Your task to perform on an android device: turn off notifications in google photos Image 0: 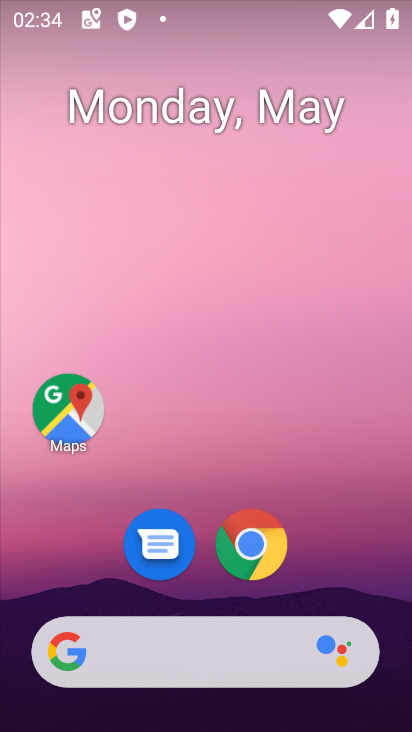
Step 0: drag from (375, 594) to (365, 227)
Your task to perform on an android device: turn off notifications in google photos Image 1: 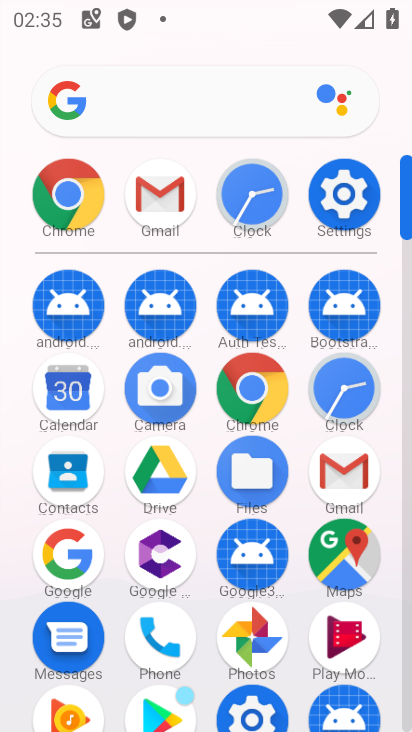
Step 1: click (263, 639)
Your task to perform on an android device: turn off notifications in google photos Image 2: 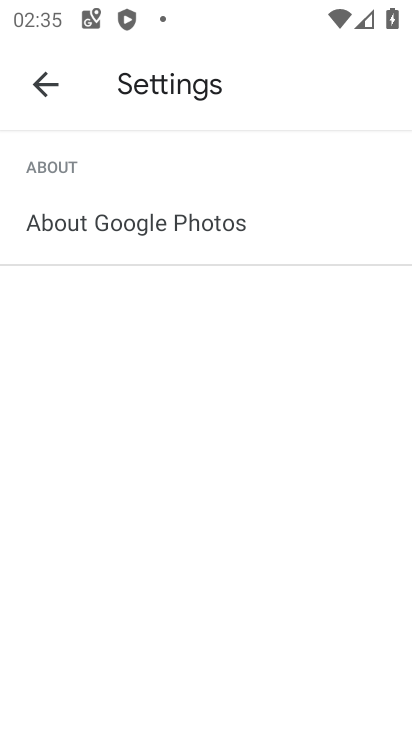
Step 2: click (48, 90)
Your task to perform on an android device: turn off notifications in google photos Image 3: 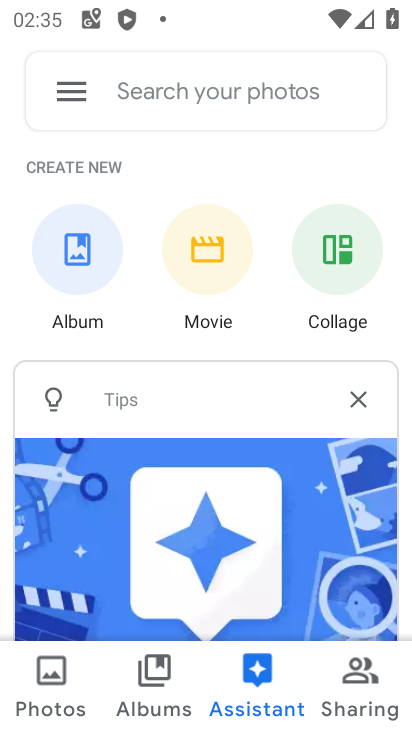
Step 3: click (78, 101)
Your task to perform on an android device: turn off notifications in google photos Image 4: 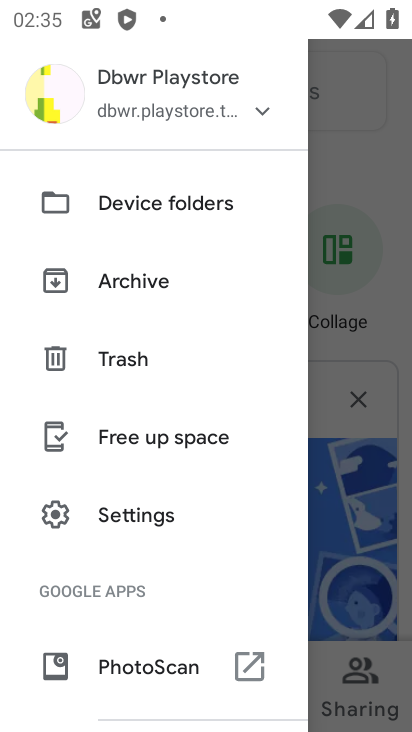
Step 4: drag from (245, 479) to (264, 323)
Your task to perform on an android device: turn off notifications in google photos Image 5: 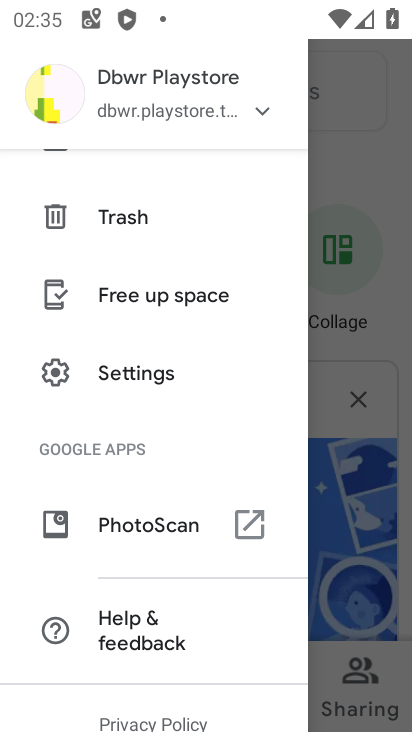
Step 5: drag from (244, 431) to (235, 286)
Your task to perform on an android device: turn off notifications in google photos Image 6: 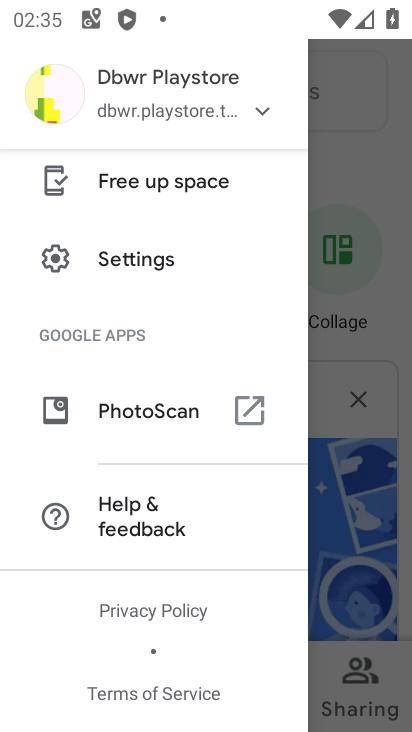
Step 6: drag from (226, 496) to (179, 296)
Your task to perform on an android device: turn off notifications in google photos Image 7: 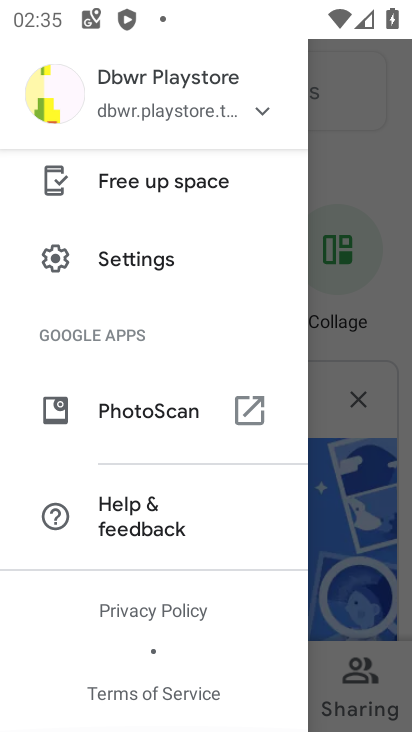
Step 7: click (164, 265)
Your task to perform on an android device: turn off notifications in google photos Image 8: 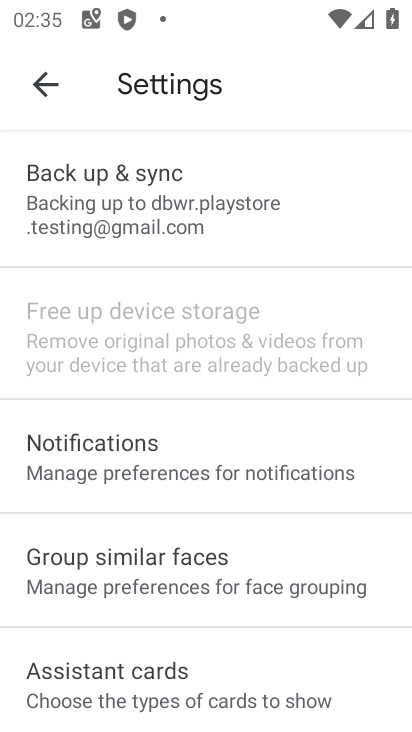
Step 8: drag from (277, 486) to (292, 305)
Your task to perform on an android device: turn off notifications in google photos Image 9: 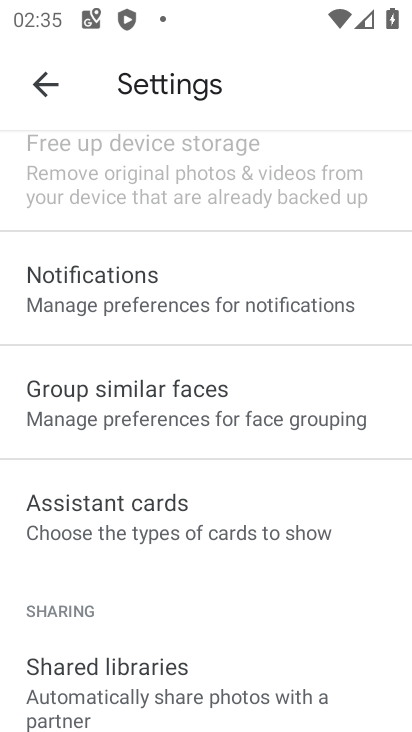
Step 9: drag from (296, 501) to (301, 322)
Your task to perform on an android device: turn off notifications in google photos Image 10: 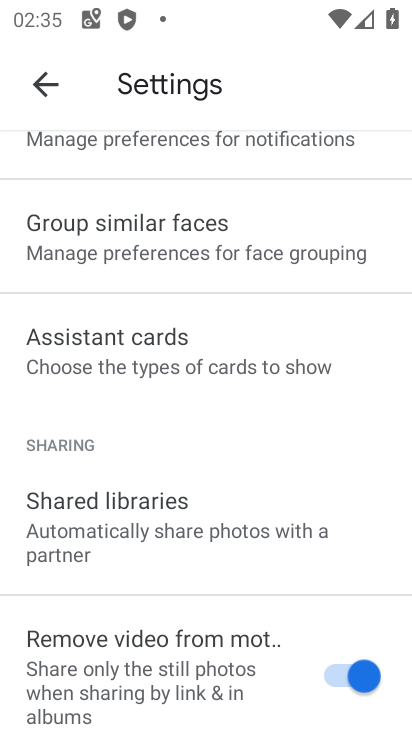
Step 10: drag from (286, 512) to (300, 252)
Your task to perform on an android device: turn off notifications in google photos Image 11: 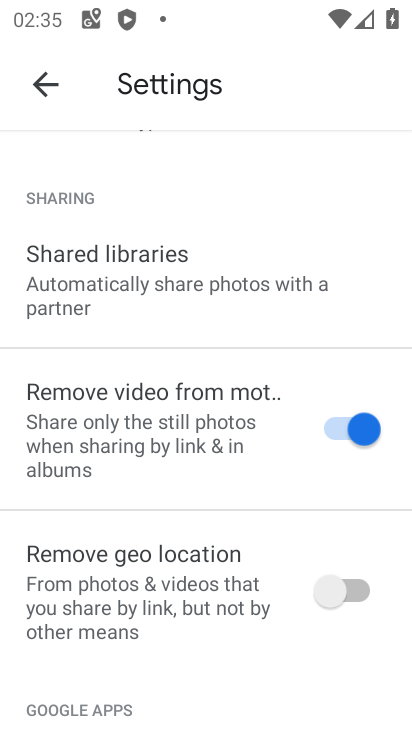
Step 11: drag from (278, 557) to (283, 321)
Your task to perform on an android device: turn off notifications in google photos Image 12: 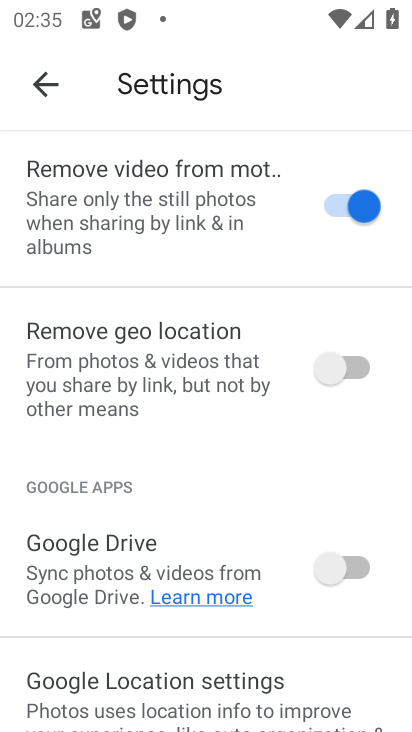
Step 12: drag from (286, 623) to (275, 372)
Your task to perform on an android device: turn off notifications in google photos Image 13: 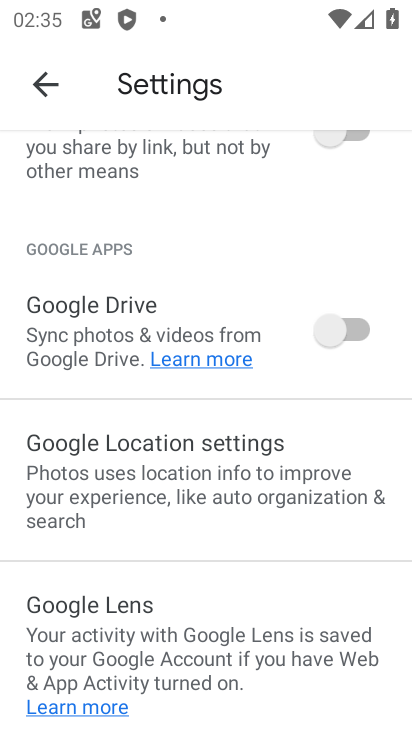
Step 13: drag from (271, 564) to (305, 319)
Your task to perform on an android device: turn off notifications in google photos Image 14: 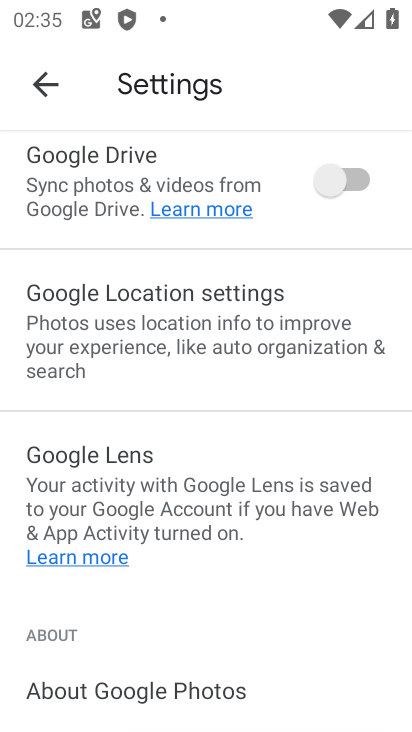
Step 14: drag from (304, 276) to (307, 506)
Your task to perform on an android device: turn off notifications in google photos Image 15: 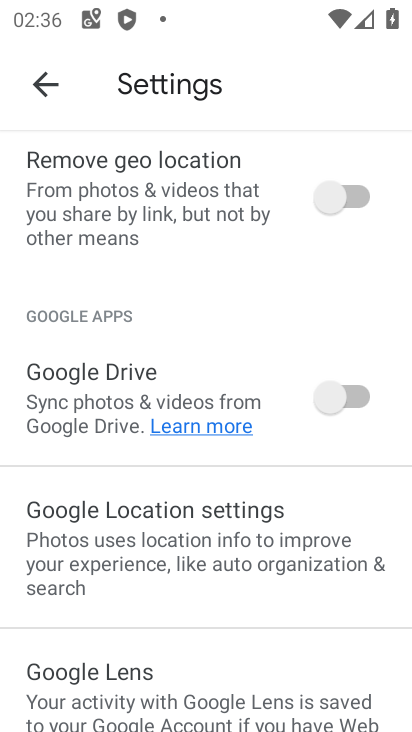
Step 15: drag from (283, 285) to (284, 469)
Your task to perform on an android device: turn off notifications in google photos Image 16: 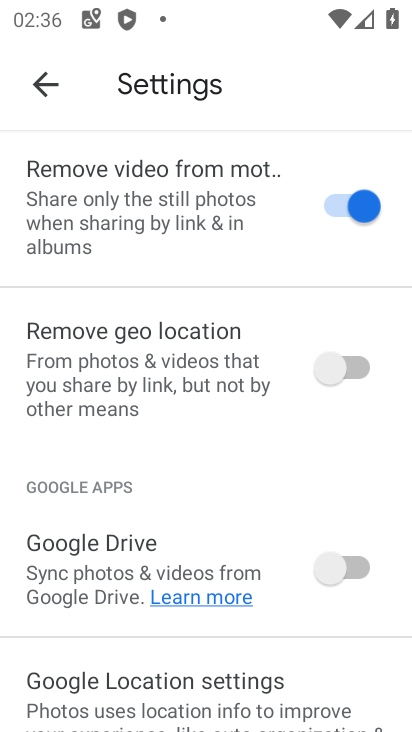
Step 16: drag from (288, 260) to (287, 440)
Your task to perform on an android device: turn off notifications in google photos Image 17: 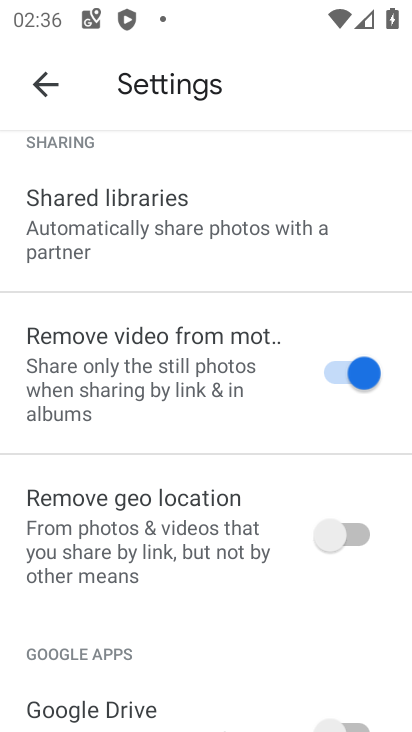
Step 17: drag from (279, 183) to (303, 372)
Your task to perform on an android device: turn off notifications in google photos Image 18: 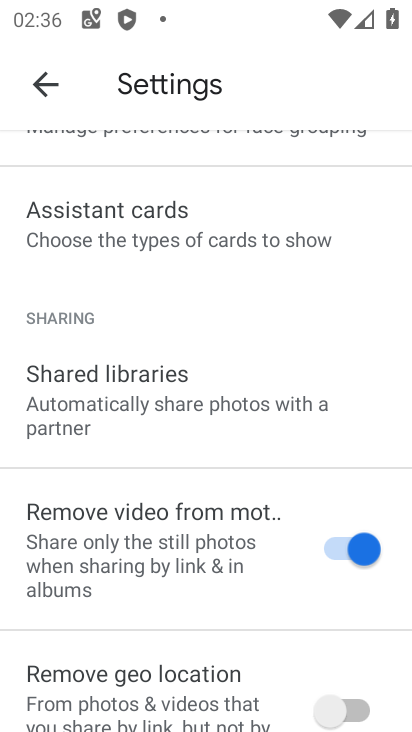
Step 18: drag from (271, 193) to (283, 425)
Your task to perform on an android device: turn off notifications in google photos Image 19: 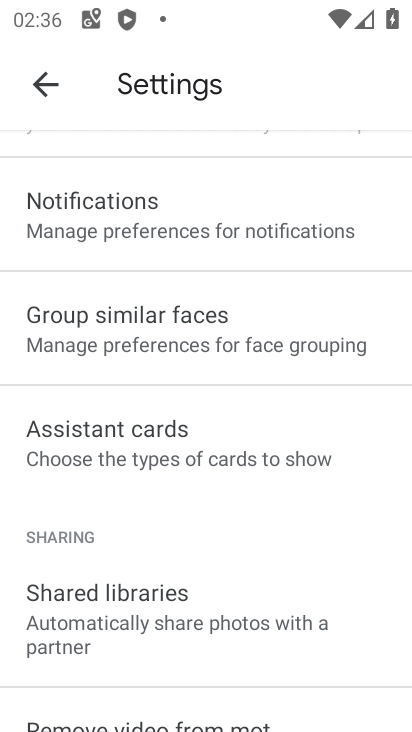
Step 19: drag from (240, 174) to (255, 469)
Your task to perform on an android device: turn off notifications in google photos Image 20: 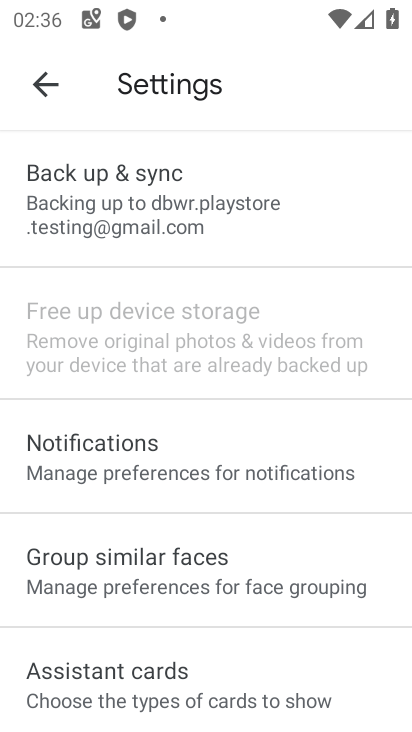
Step 20: click (196, 465)
Your task to perform on an android device: turn off notifications in google photos Image 21: 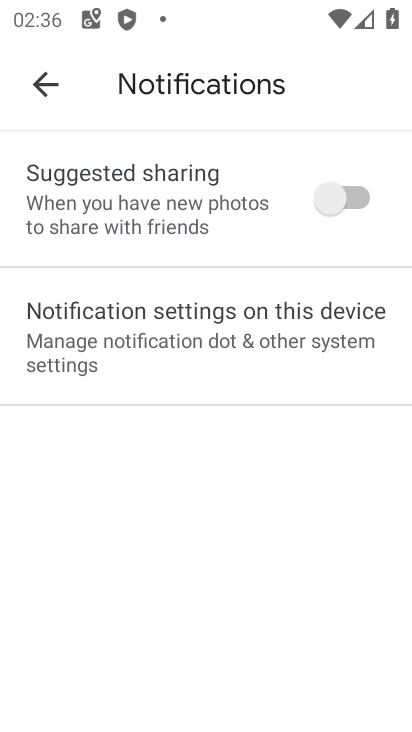
Step 21: click (243, 321)
Your task to perform on an android device: turn off notifications in google photos Image 22: 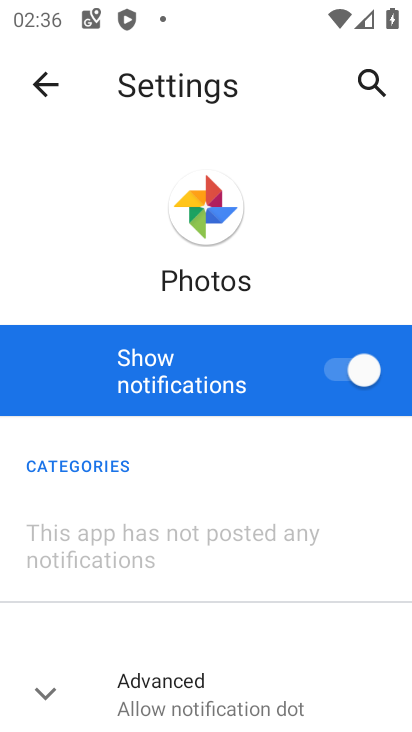
Step 22: click (371, 366)
Your task to perform on an android device: turn off notifications in google photos Image 23: 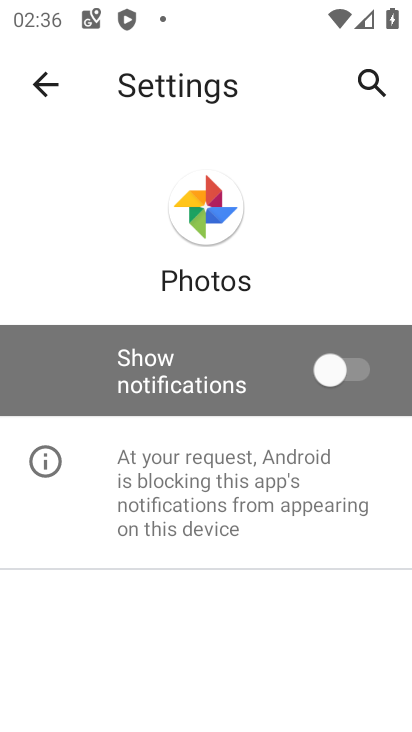
Step 23: task complete